Your task to perform on an android device: Show the shopping cart on newegg. Search for usb-c to usb-b on newegg, select the first entry, add it to the cart, then select checkout. Image 0: 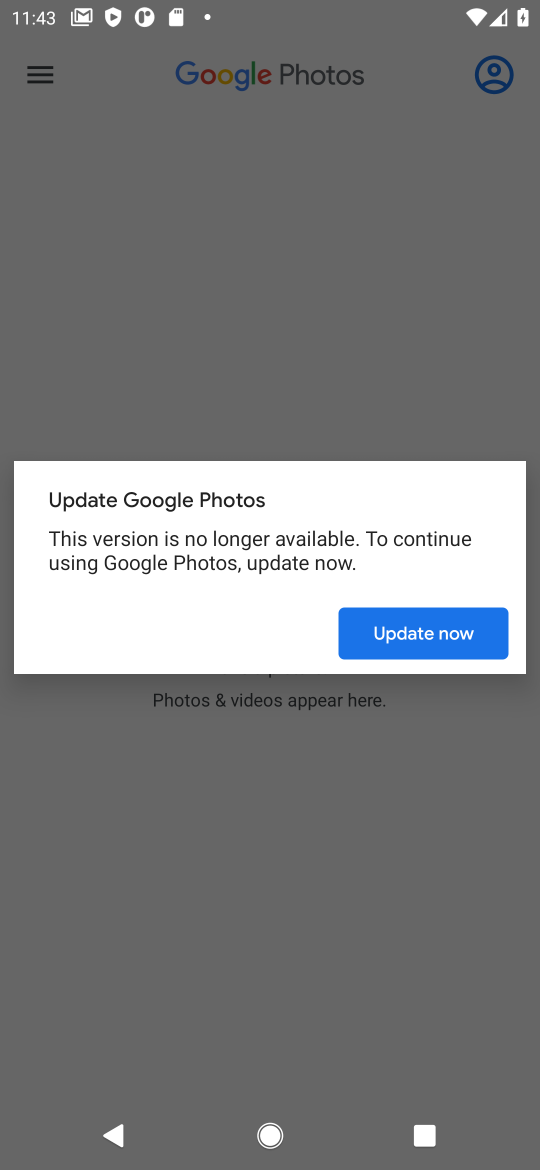
Step 0: task complete